Your task to perform on an android device: set an alarm Image 0: 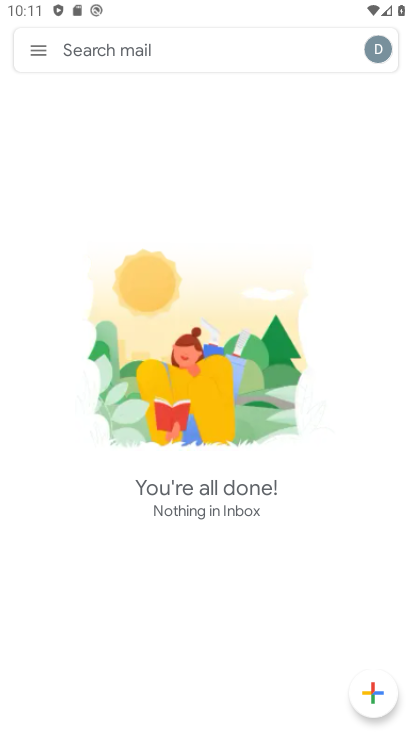
Step 0: press home button
Your task to perform on an android device: set an alarm Image 1: 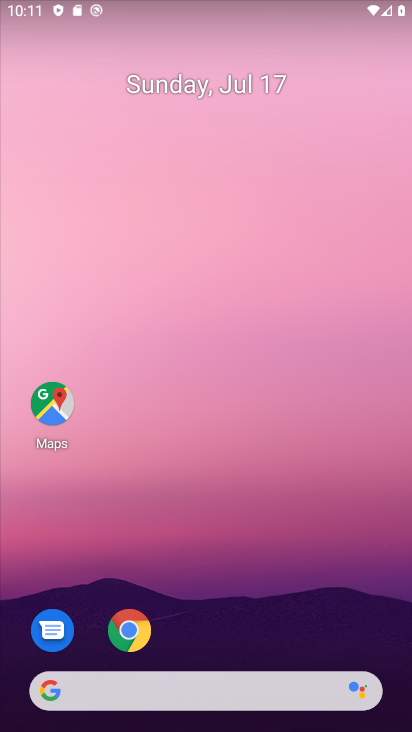
Step 1: drag from (328, 616) to (396, 206)
Your task to perform on an android device: set an alarm Image 2: 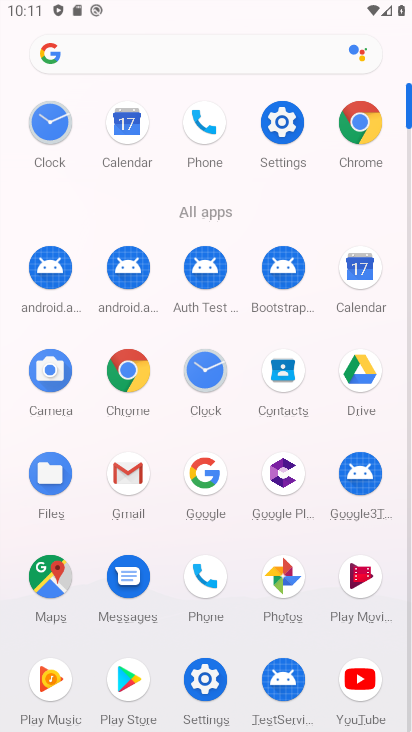
Step 2: drag from (251, 154) to (269, 36)
Your task to perform on an android device: set an alarm Image 3: 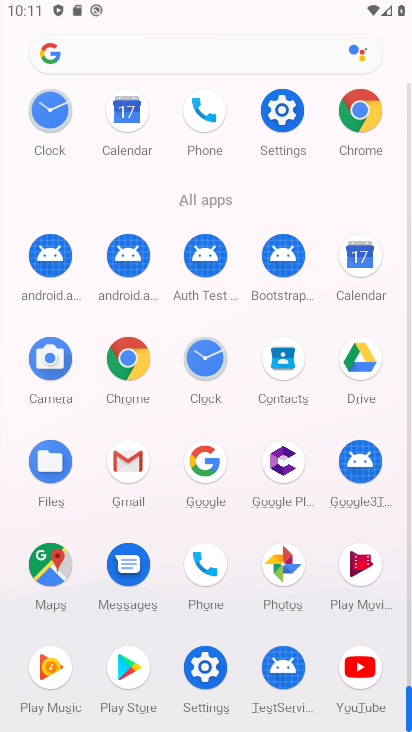
Step 3: click (203, 374)
Your task to perform on an android device: set an alarm Image 4: 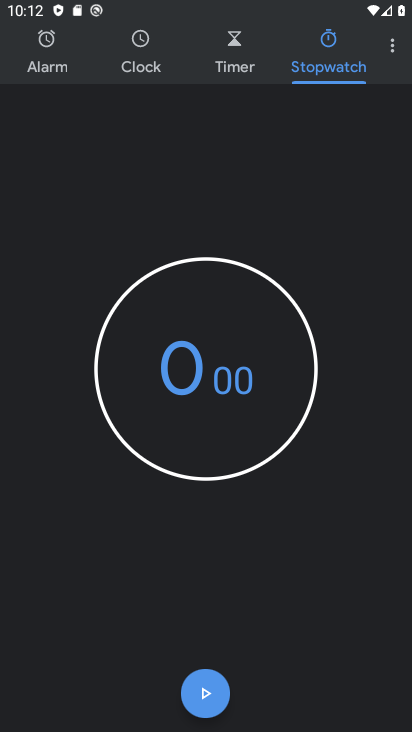
Step 4: click (43, 61)
Your task to perform on an android device: set an alarm Image 5: 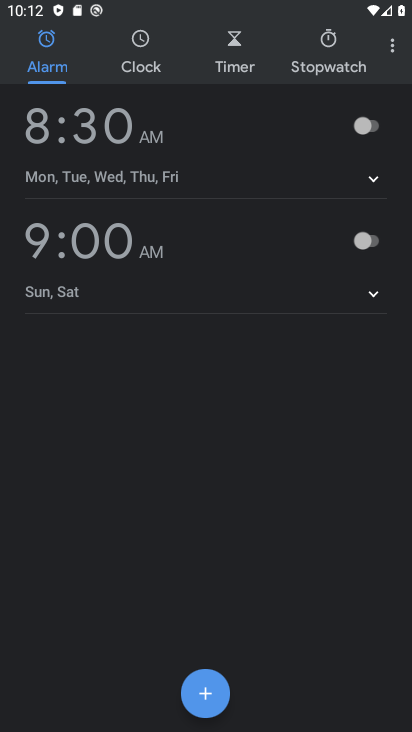
Step 5: click (200, 685)
Your task to perform on an android device: set an alarm Image 6: 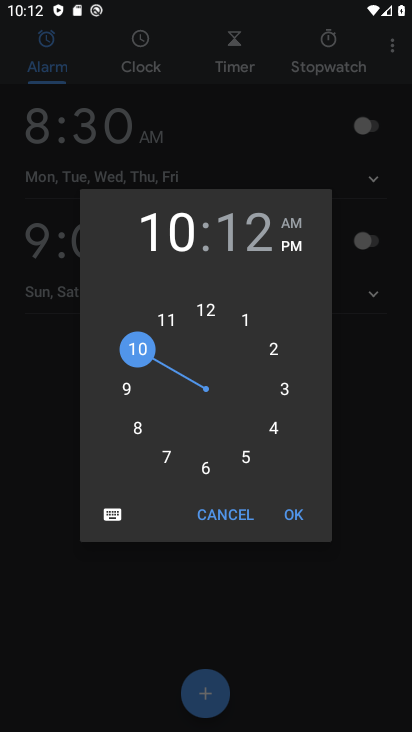
Step 6: click (287, 517)
Your task to perform on an android device: set an alarm Image 7: 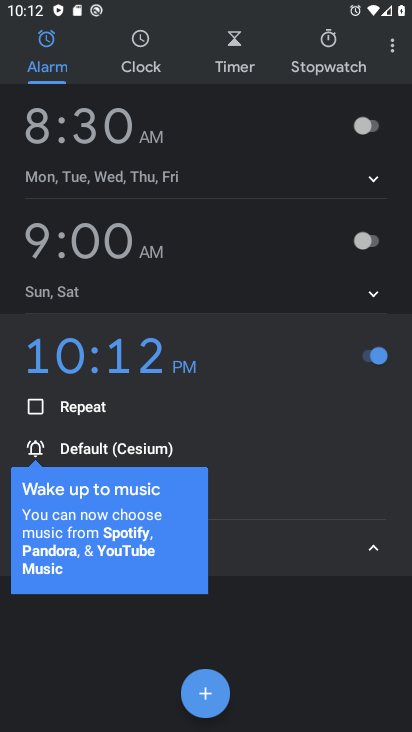
Step 7: task complete